Your task to perform on an android device: open chrome privacy settings Image 0: 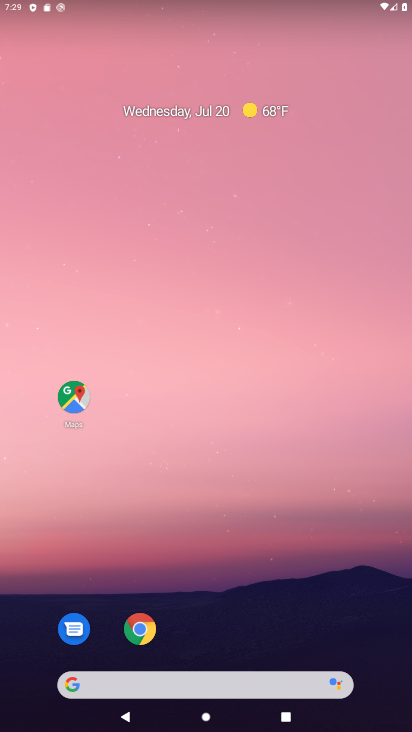
Step 0: drag from (369, 643) to (384, 67)
Your task to perform on an android device: open chrome privacy settings Image 1: 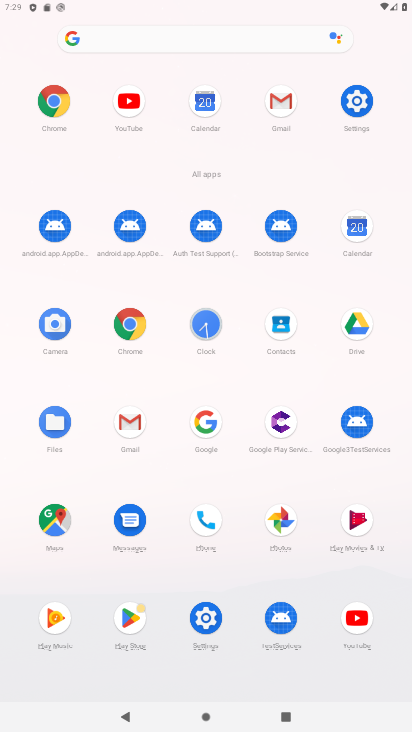
Step 1: click (135, 327)
Your task to perform on an android device: open chrome privacy settings Image 2: 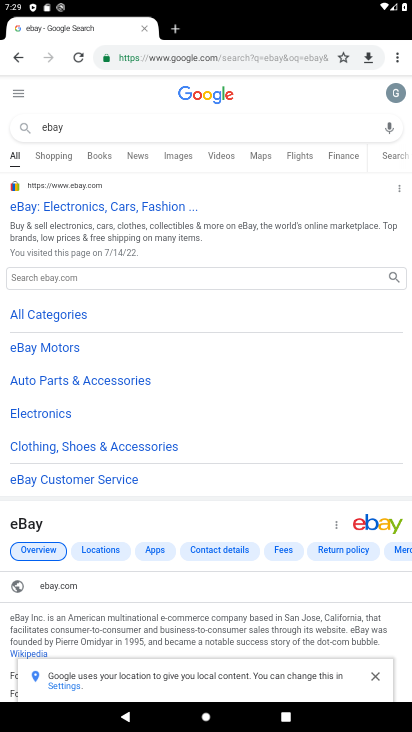
Step 2: click (402, 59)
Your task to perform on an android device: open chrome privacy settings Image 3: 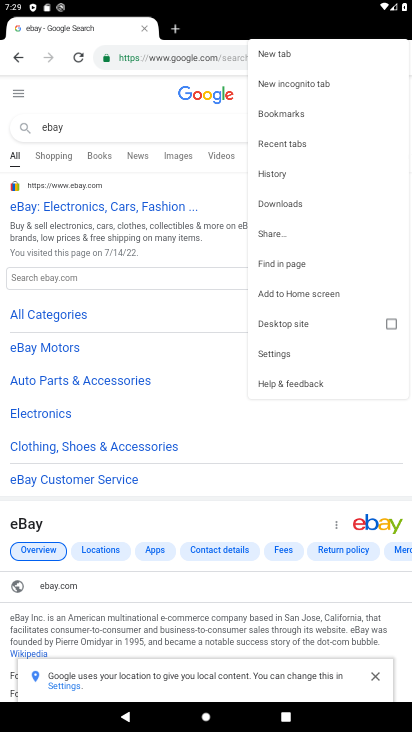
Step 3: click (277, 358)
Your task to perform on an android device: open chrome privacy settings Image 4: 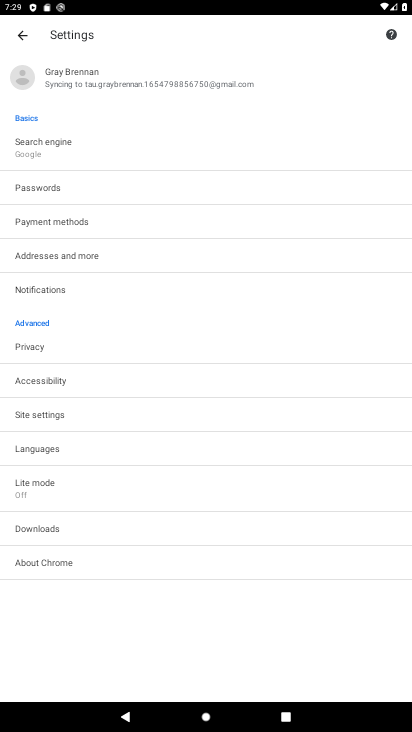
Step 4: click (203, 350)
Your task to perform on an android device: open chrome privacy settings Image 5: 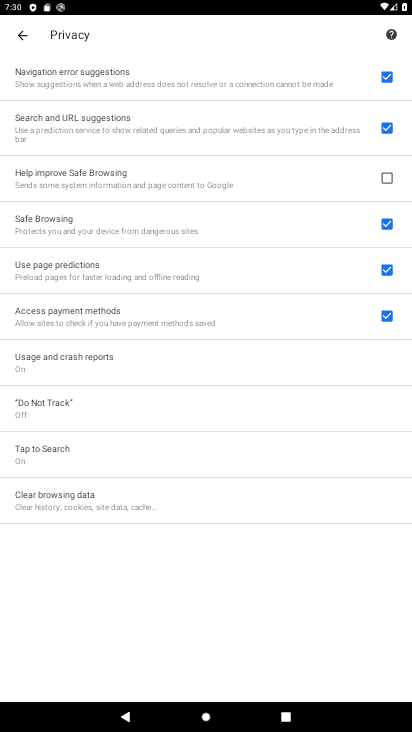
Step 5: task complete